Your task to perform on an android device: turn pop-ups off in chrome Image 0: 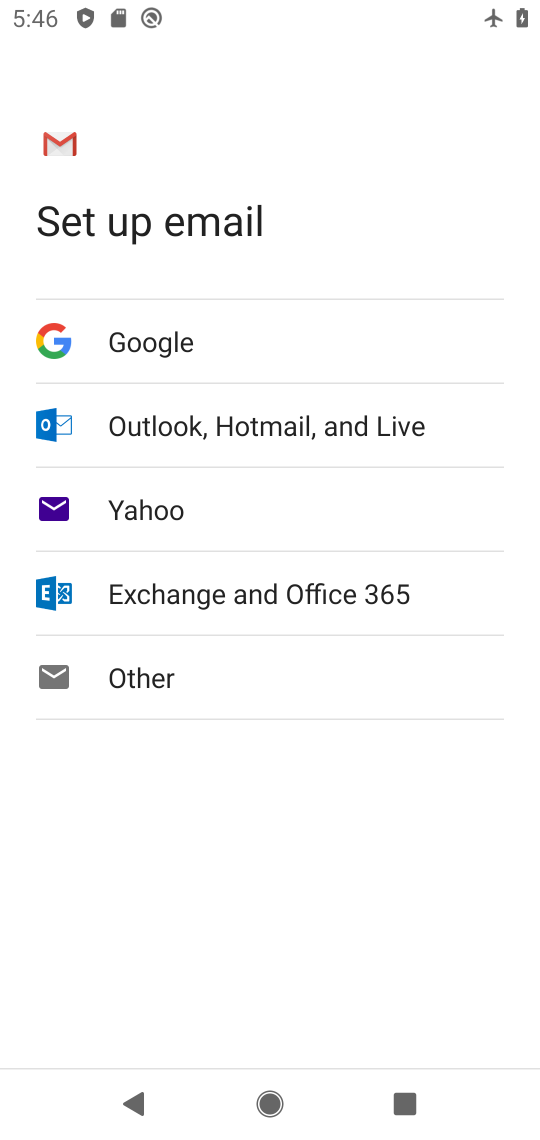
Step 0: press home button
Your task to perform on an android device: turn pop-ups off in chrome Image 1: 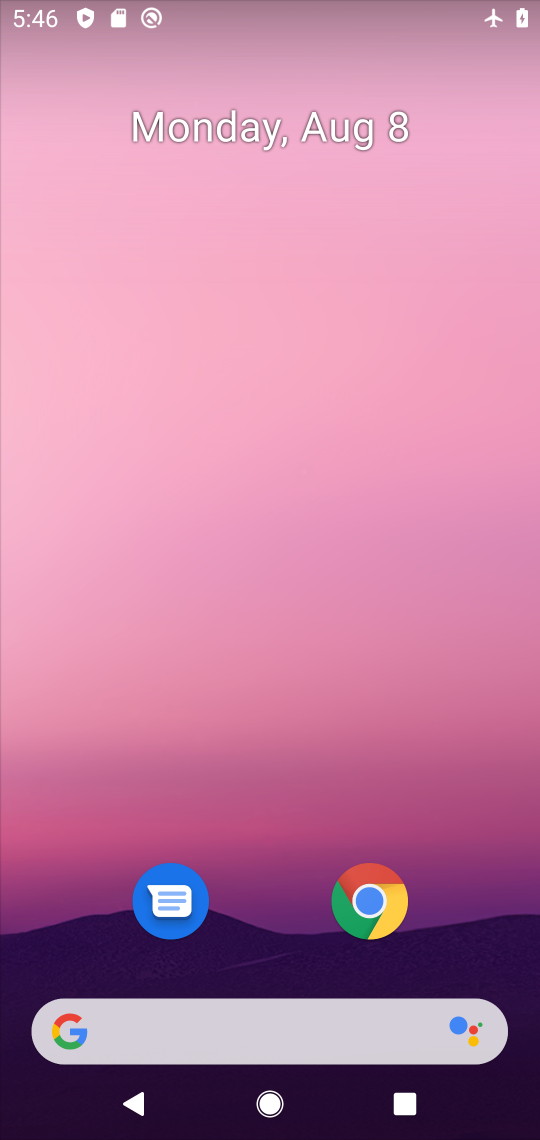
Step 1: click (394, 901)
Your task to perform on an android device: turn pop-ups off in chrome Image 2: 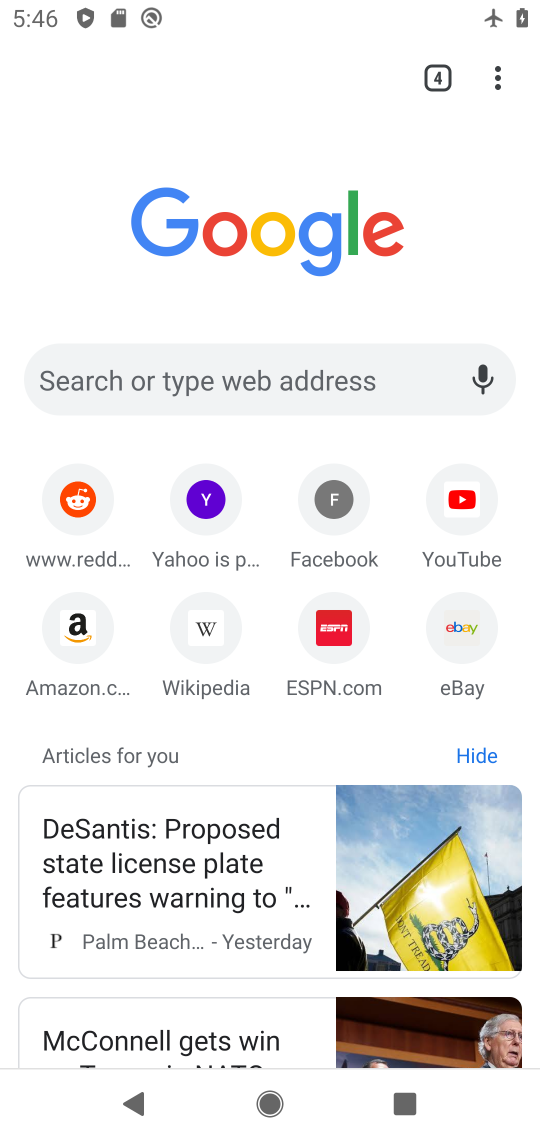
Step 2: click (502, 72)
Your task to perform on an android device: turn pop-ups off in chrome Image 3: 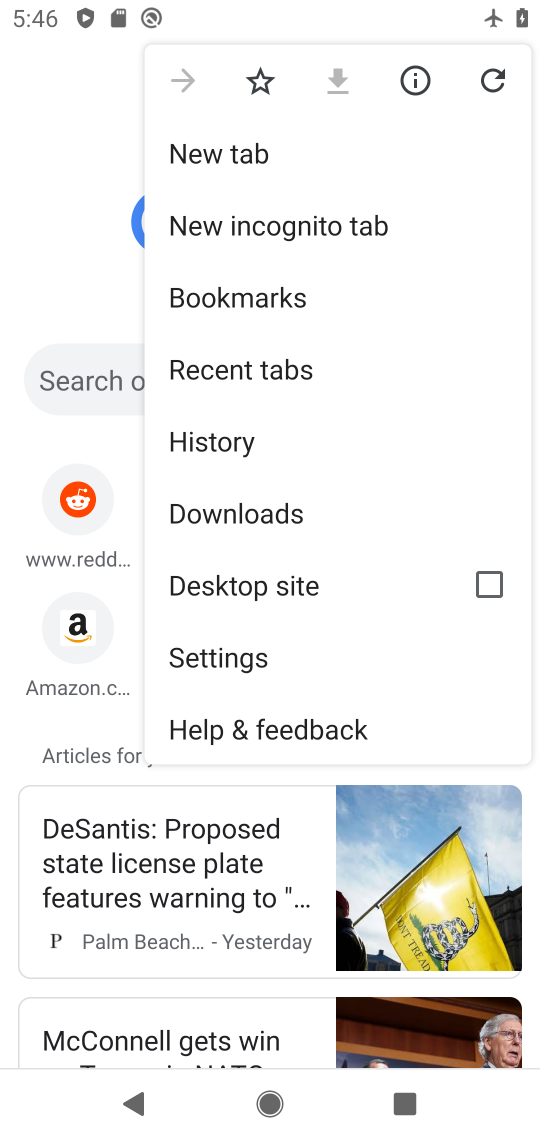
Step 3: click (268, 651)
Your task to perform on an android device: turn pop-ups off in chrome Image 4: 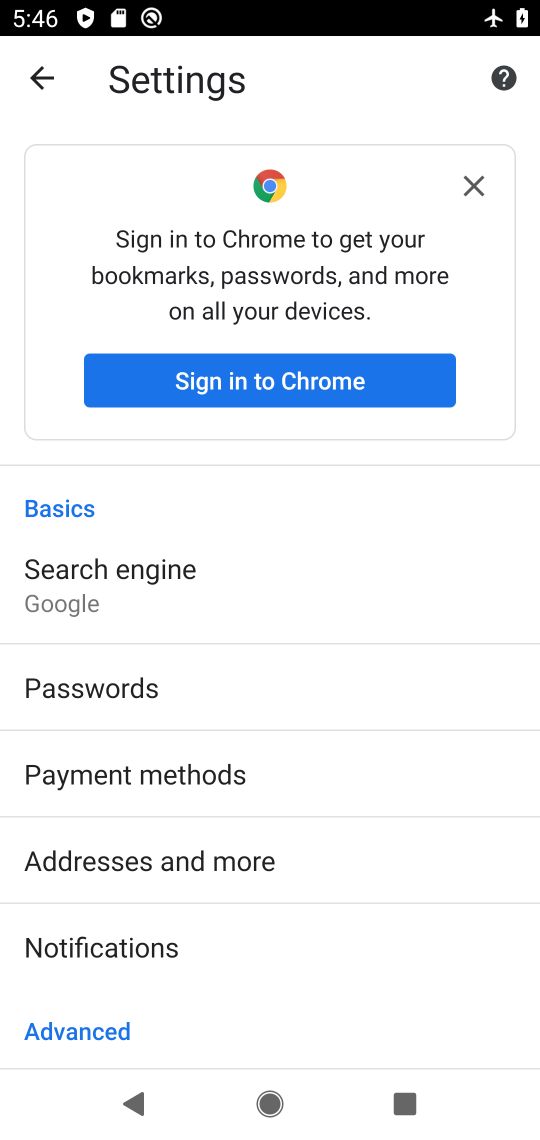
Step 4: drag from (344, 921) to (85, 25)
Your task to perform on an android device: turn pop-ups off in chrome Image 5: 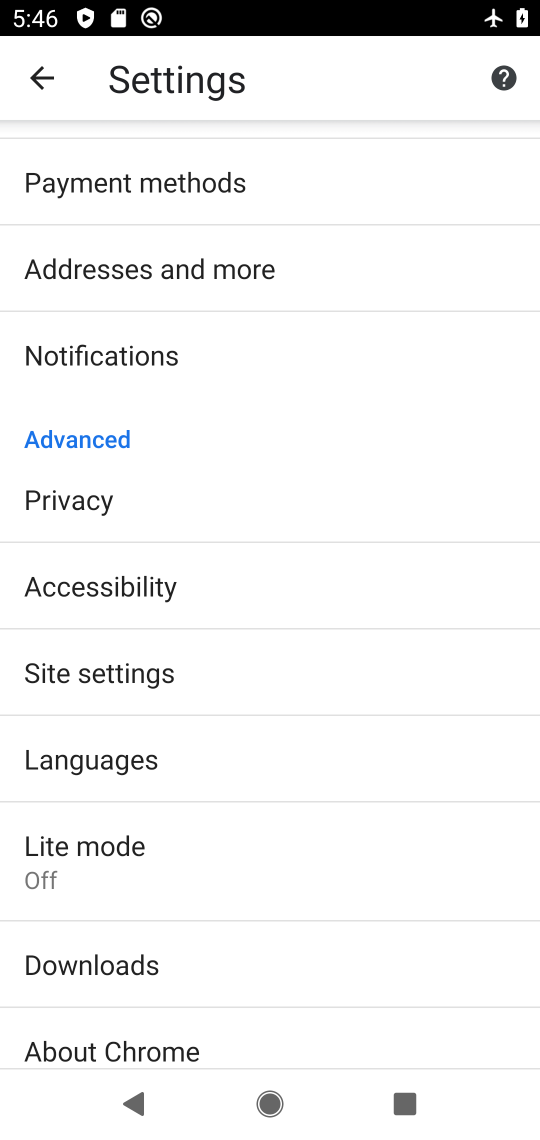
Step 5: click (192, 683)
Your task to perform on an android device: turn pop-ups off in chrome Image 6: 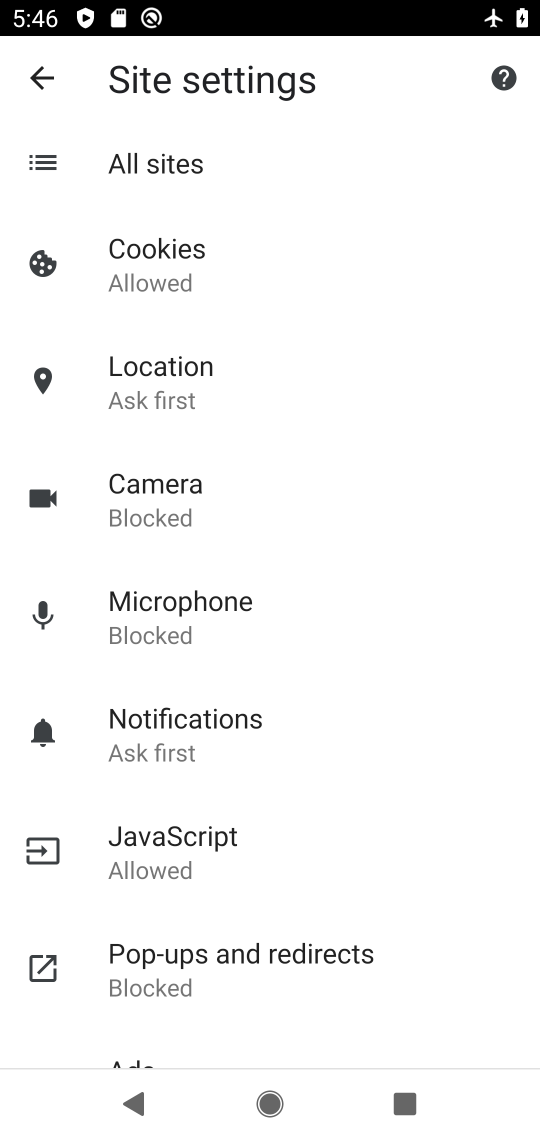
Step 6: click (265, 972)
Your task to perform on an android device: turn pop-ups off in chrome Image 7: 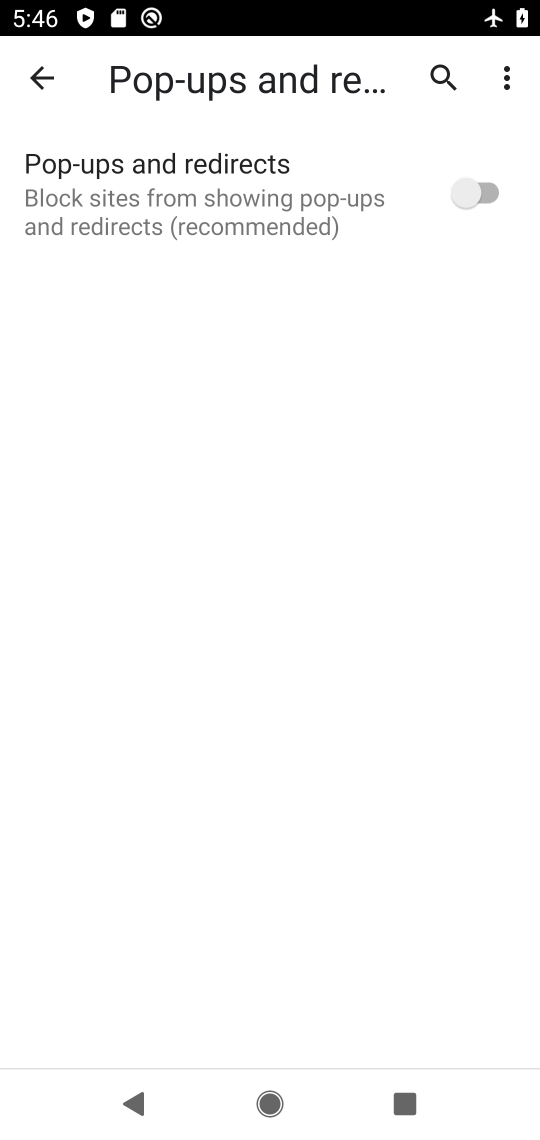
Step 7: task complete